Your task to perform on an android device: Play the last video I watched on Youtube Image 0: 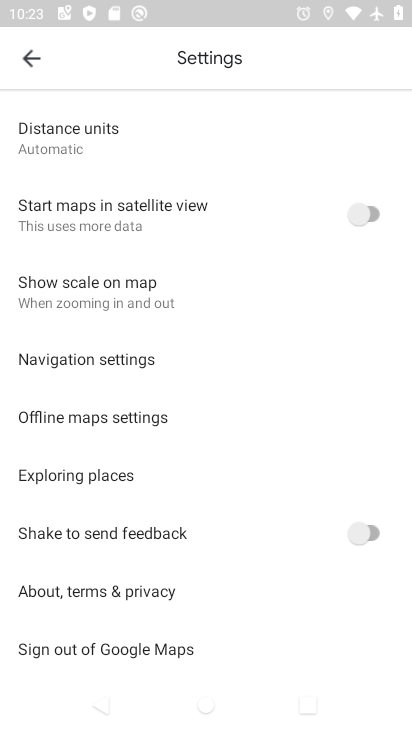
Step 0: press home button
Your task to perform on an android device: Play the last video I watched on Youtube Image 1: 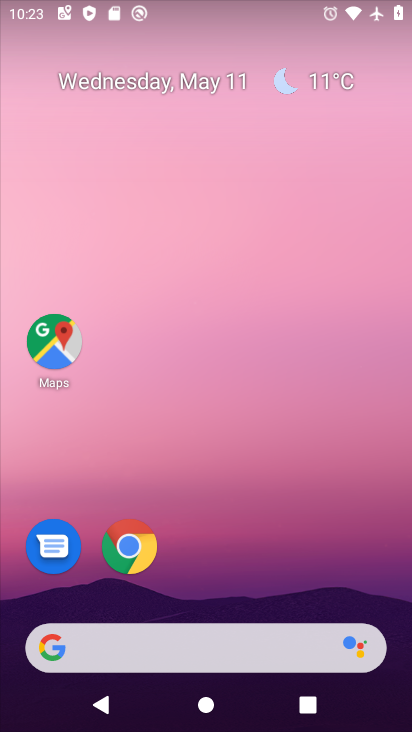
Step 1: drag from (393, 619) to (309, 55)
Your task to perform on an android device: Play the last video I watched on Youtube Image 2: 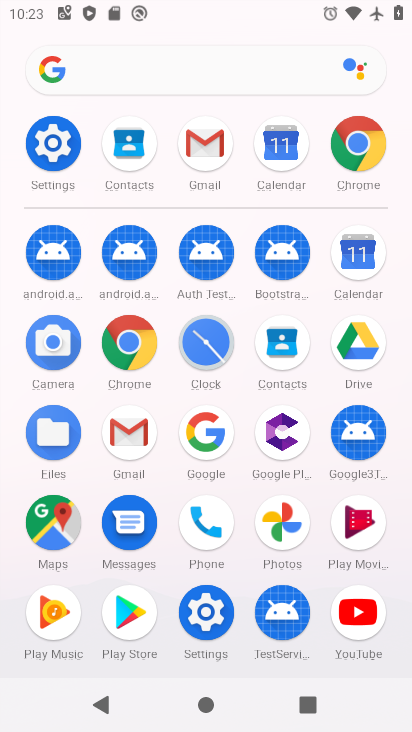
Step 2: click (357, 606)
Your task to perform on an android device: Play the last video I watched on Youtube Image 3: 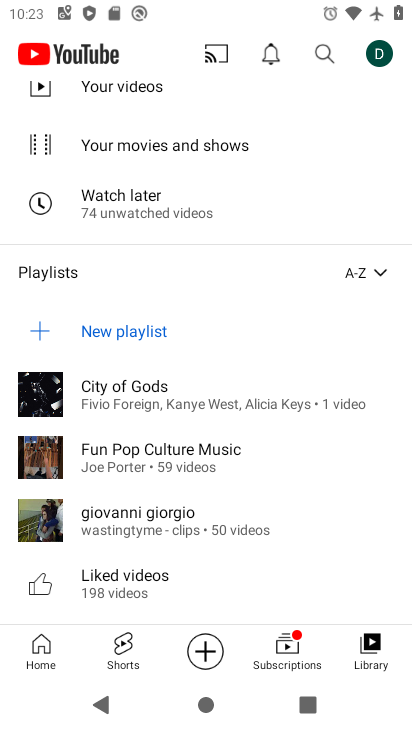
Step 3: drag from (215, 149) to (204, 475)
Your task to perform on an android device: Play the last video I watched on Youtube Image 4: 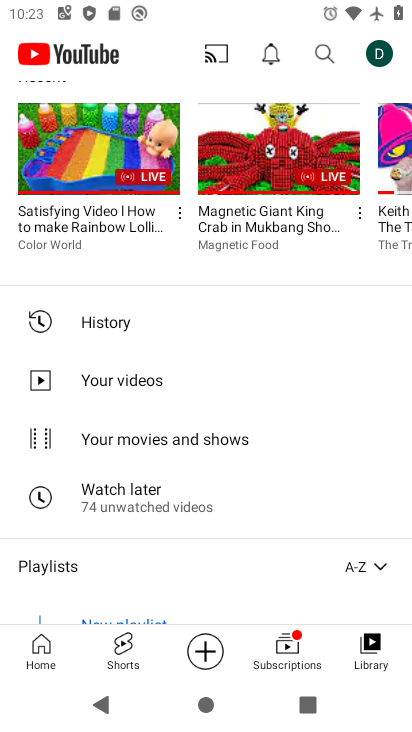
Step 4: click (84, 142)
Your task to perform on an android device: Play the last video I watched on Youtube Image 5: 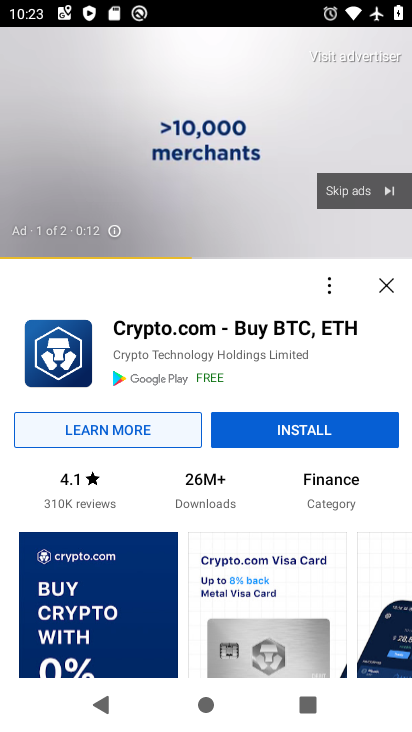
Step 5: click (363, 191)
Your task to perform on an android device: Play the last video I watched on Youtube Image 6: 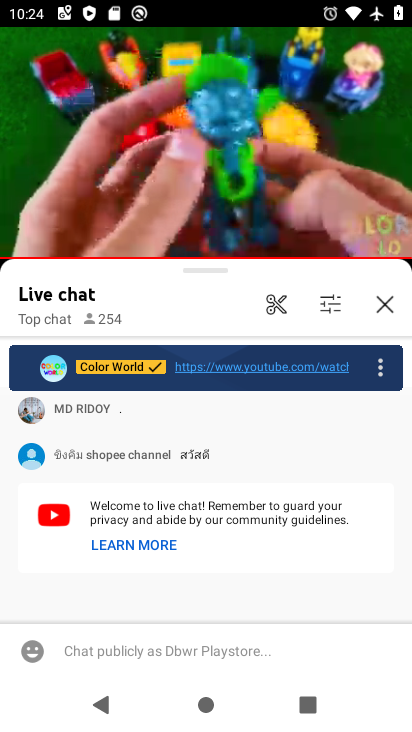
Step 6: task complete